Your task to perform on an android device: What's the weather going to be this weekend? Image 0: 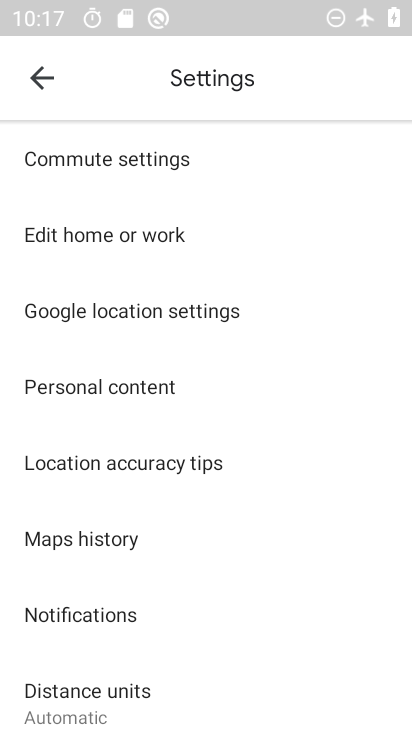
Step 0: press home button
Your task to perform on an android device: What's the weather going to be this weekend? Image 1: 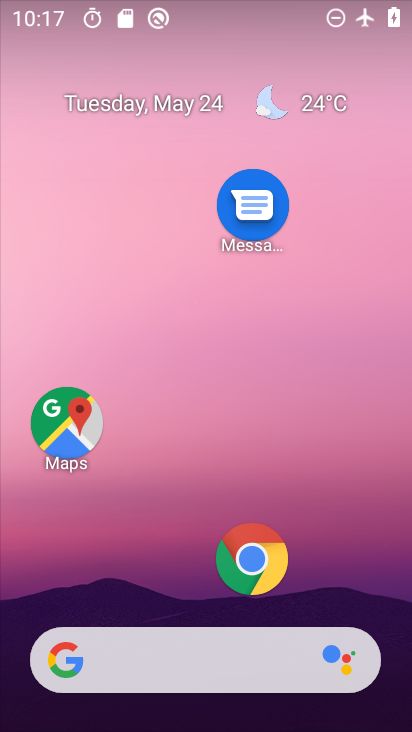
Step 1: drag from (198, 606) to (200, 248)
Your task to perform on an android device: What's the weather going to be this weekend? Image 2: 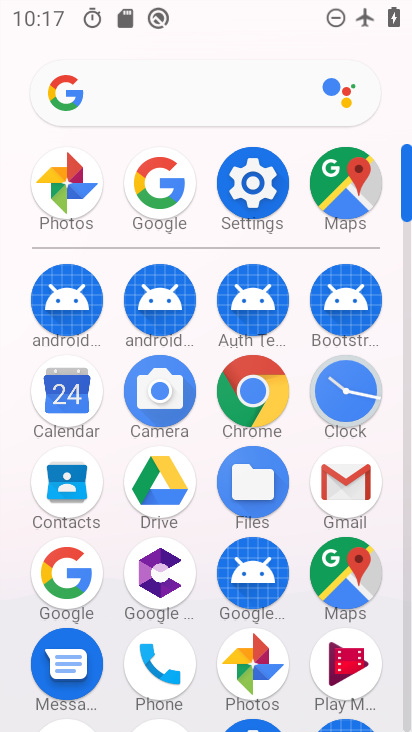
Step 2: click (154, 200)
Your task to perform on an android device: What's the weather going to be this weekend? Image 3: 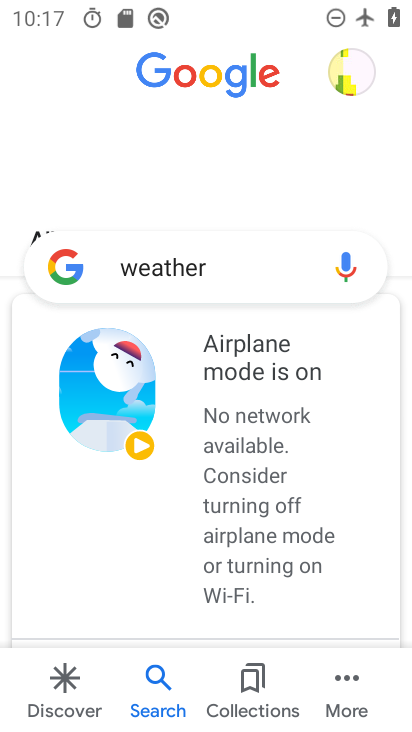
Step 3: task complete